Your task to perform on an android device: check android version Image 0: 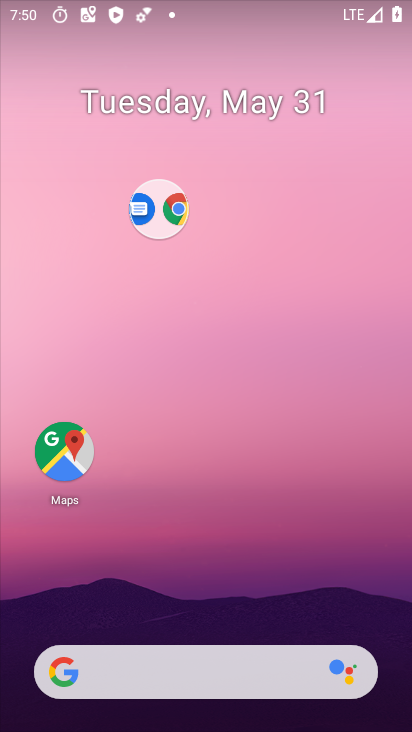
Step 0: drag from (196, 631) to (209, 85)
Your task to perform on an android device: check android version Image 1: 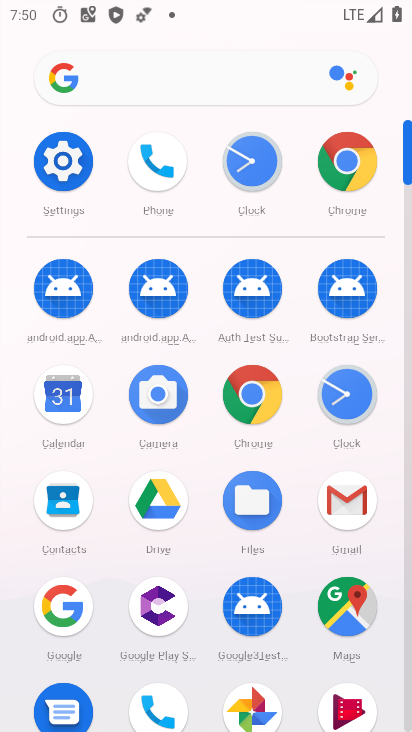
Step 1: click (71, 170)
Your task to perform on an android device: check android version Image 2: 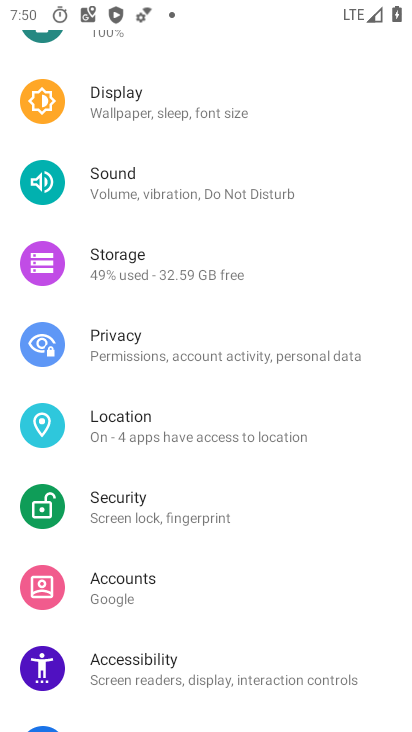
Step 2: drag from (178, 662) to (245, 15)
Your task to perform on an android device: check android version Image 3: 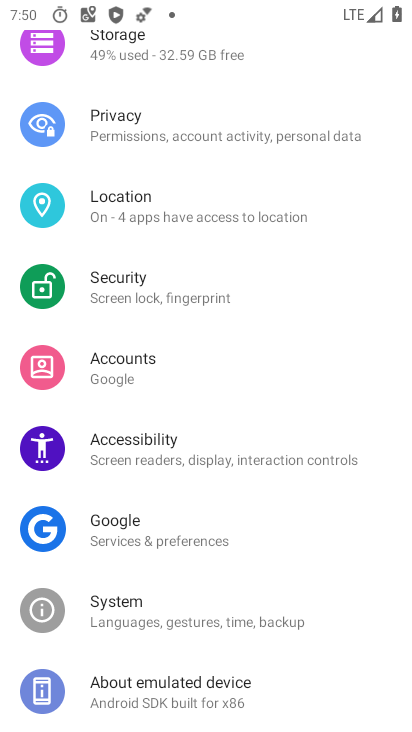
Step 3: click (125, 695)
Your task to perform on an android device: check android version Image 4: 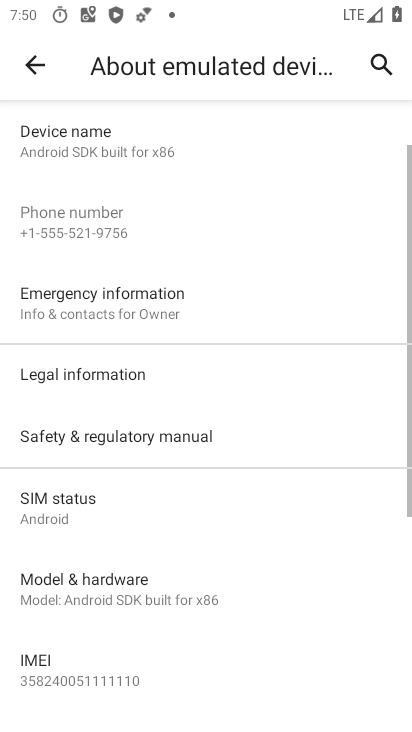
Step 4: drag from (149, 635) to (242, 205)
Your task to perform on an android device: check android version Image 5: 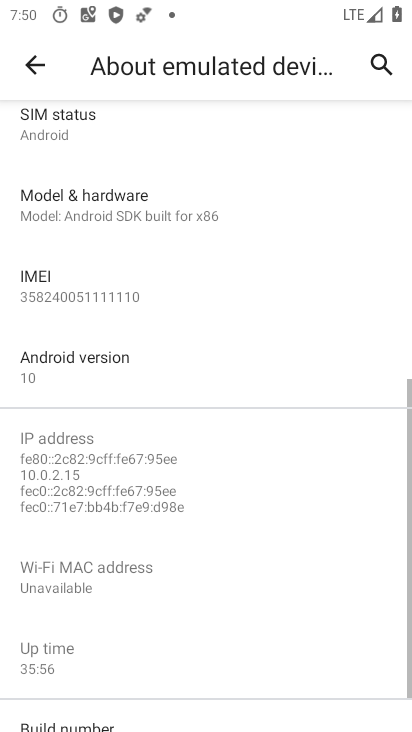
Step 5: click (98, 385)
Your task to perform on an android device: check android version Image 6: 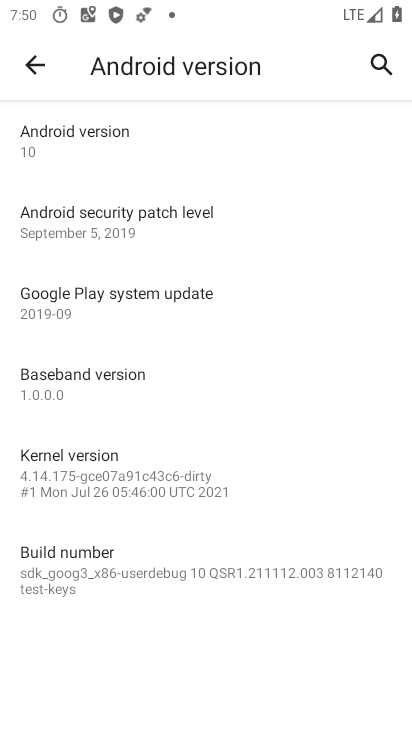
Step 6: task complete